Your task to perform on an android device: Go to Yahoo.com Image 0: 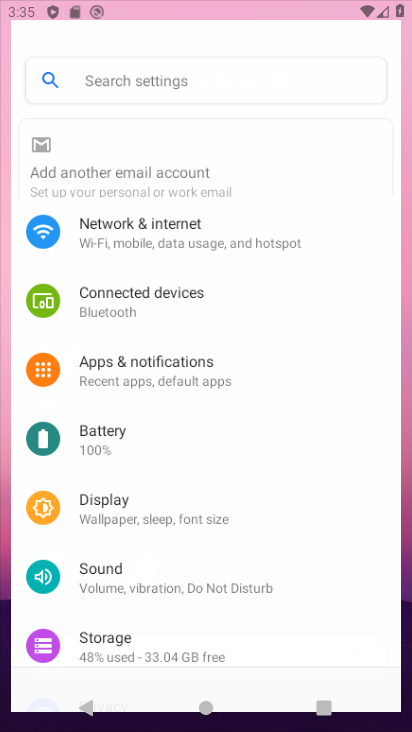
Step 0: drag from (255, 692) to (331, 130)
Your task to perform on an android device: Go to Yahoo.com Image 1: 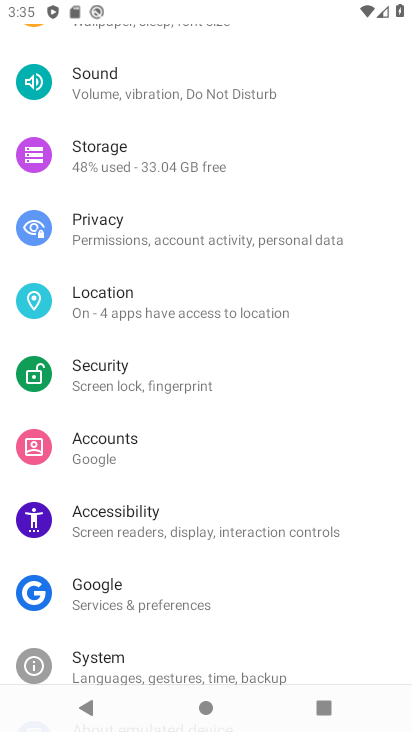
Step 1: press home button
Your task to perform on an android device: Go to Yahoo.com Image 2: 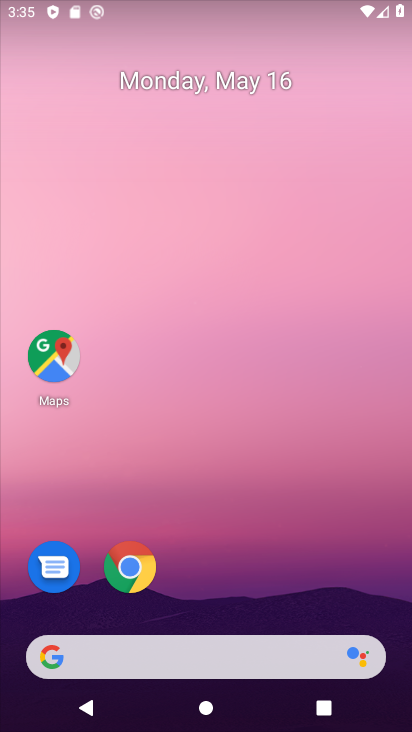
Step 2: drag from (341, 647) to (346, 5)
Your task to perform on an android device: Go to Yahoo.com Image 3: 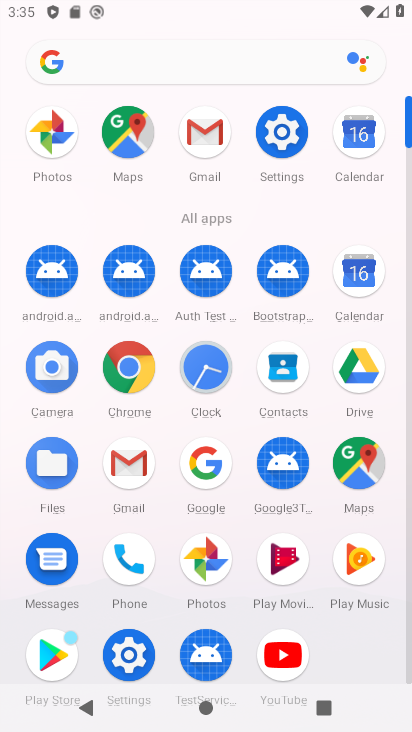
Step 3: click (122, 375)
Your task to perform on an android device: Go to Yahoo.com Image 4: 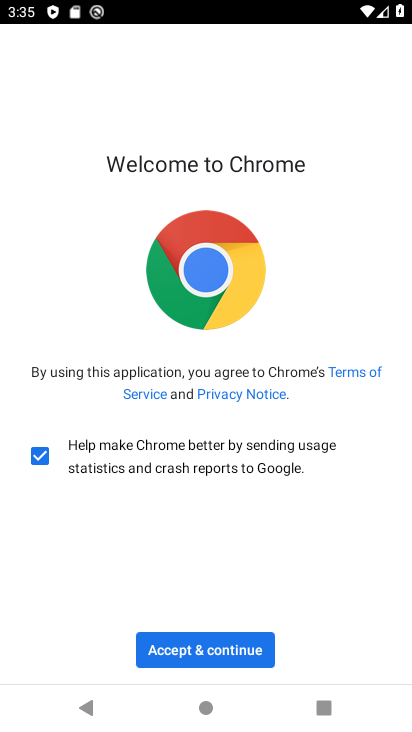
Step 4: click (233, 642)
Your task to perform on an android device: Go to Yahoo.com Image 5: 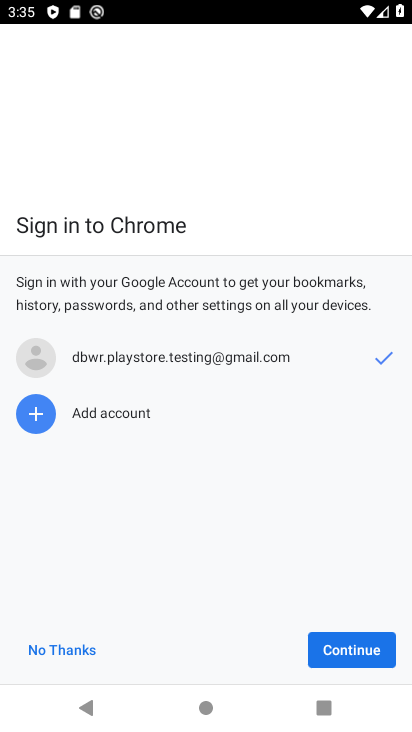
Step 5: click (86, 650)
Your task to perform on an android device: Go to Yahoo.com Image 6: 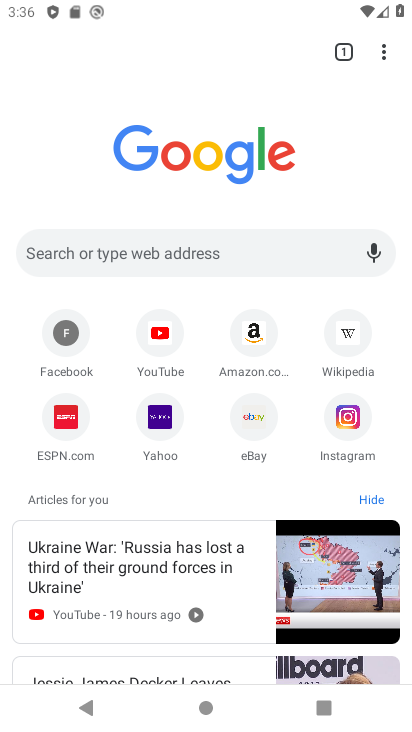
Step 6: click (177, 426)
Your task to perform on an android device: Go to Yahoo.com Image 7: 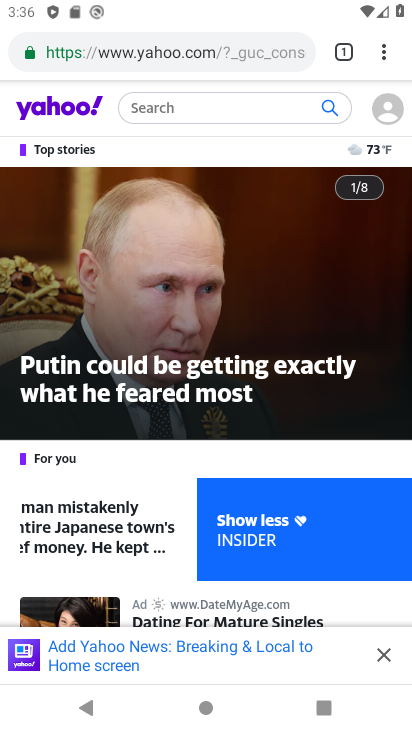
Step 7: task complete